Your task to perform on an android device: Go to Amazon Image 0: 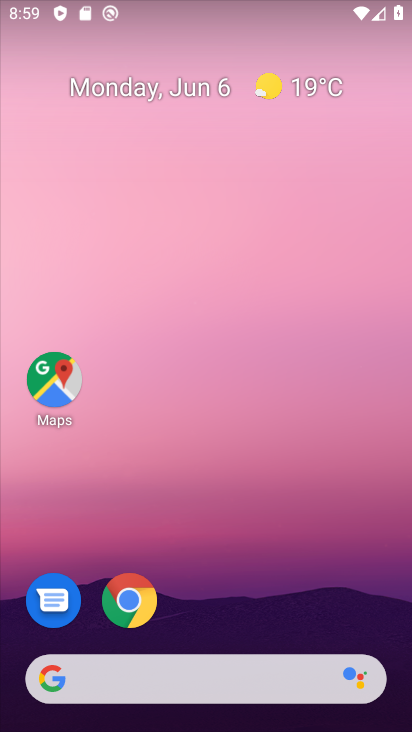
Step 0: click (148, 596)
Your task to perform on an android device: Go to Amazon Image 1: 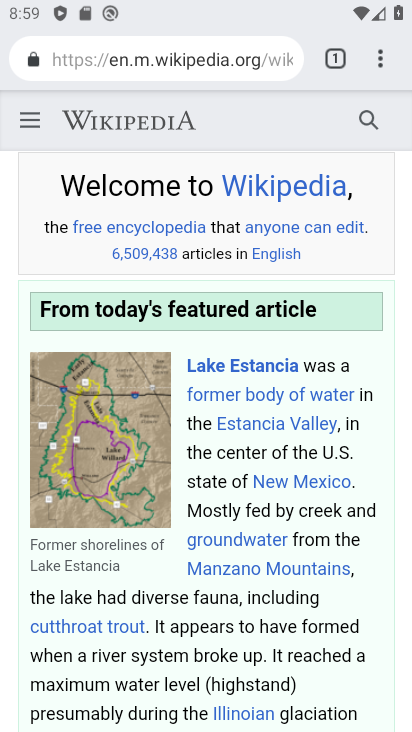
Step 1: click (337, 54)
Your task to perform on an android device: Go to Amazon Image 2: 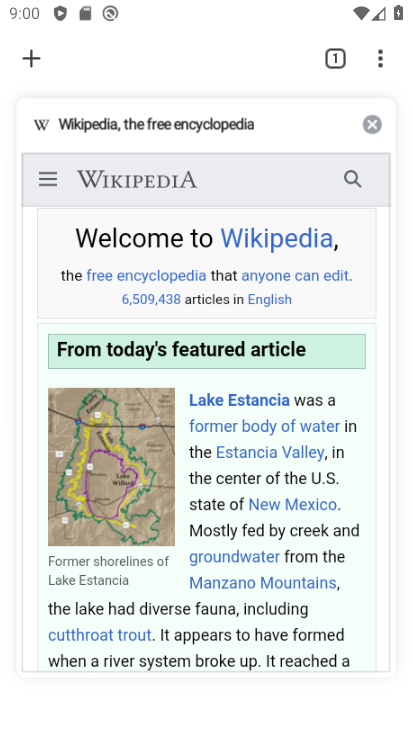
Step 2: click (40, 70)
Your task to perform on an android device: Go to Amazon Image 3: 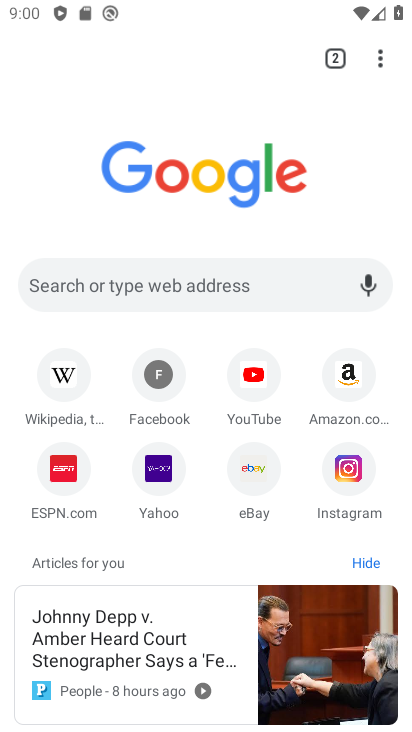
Step 3: click (353, 377)
Your task to perform on an android device: Go to Amazon Image 4: 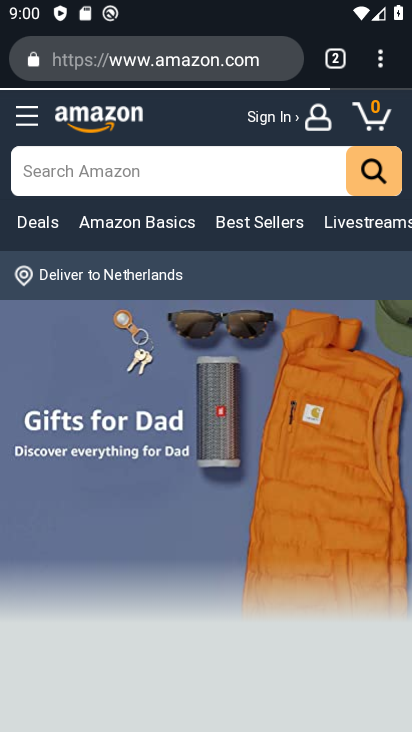
Step 4: task complete